Your task to perform on an android device: toggle javascript in the chrome app Image 0: 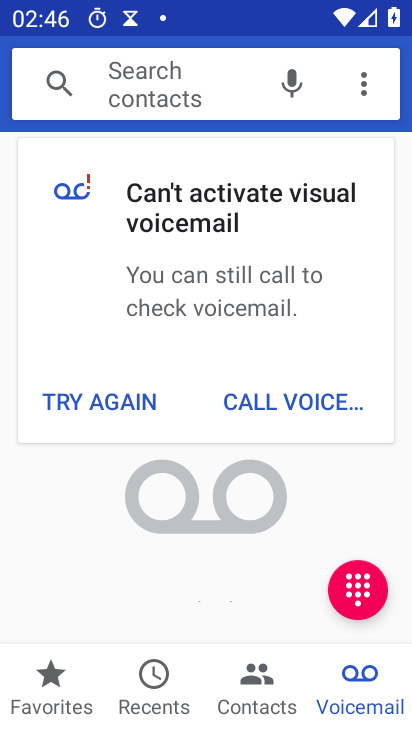
Step 0: press home button
Your task to perform on an android device: toggle javascript in the chrome app Image 1: 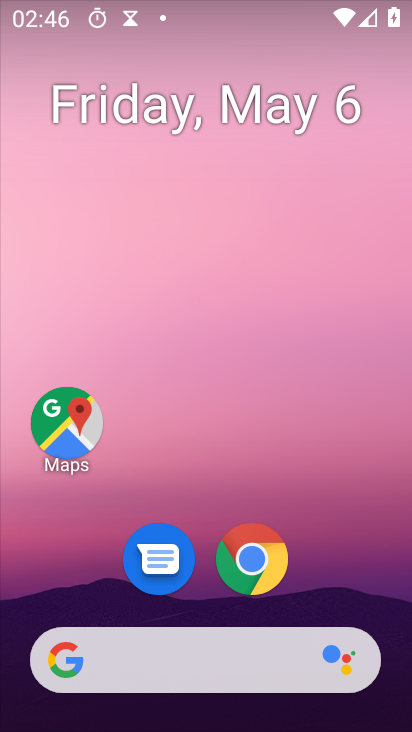
Step 1: drag from (291, 598) to (315, 28)
Your task to perform on an android device: toggle javascript in the chrome app Image 2: 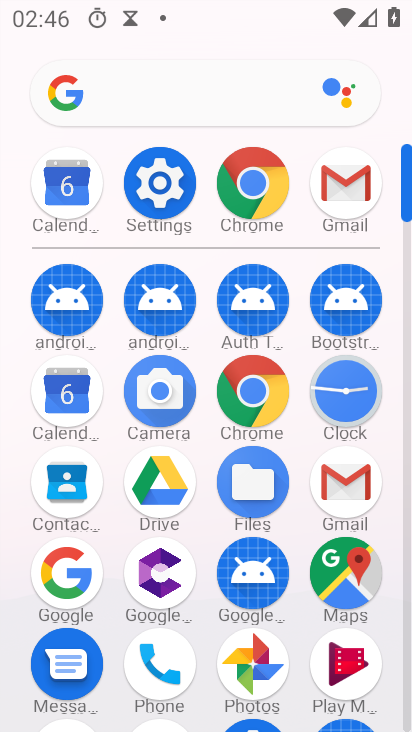
Step 2: click (269, 397)
Your task to perform on an android device: toggle javascript in the chrome app Image 3: 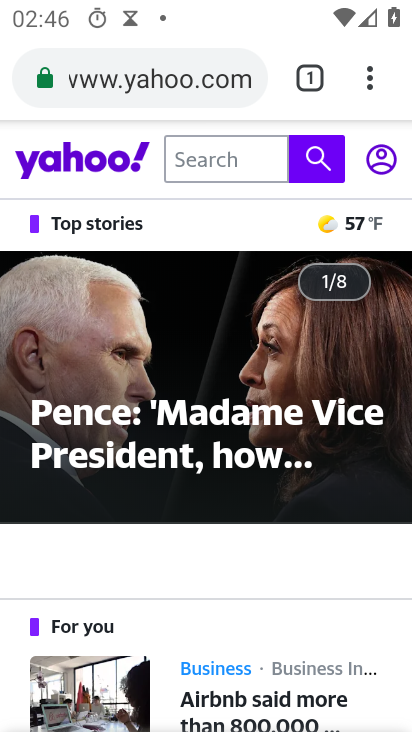
Step 3: drag from (369, 77) to (135, 619)
Your task to perform on an android device: toggle javascript in the chrome app Image 4: 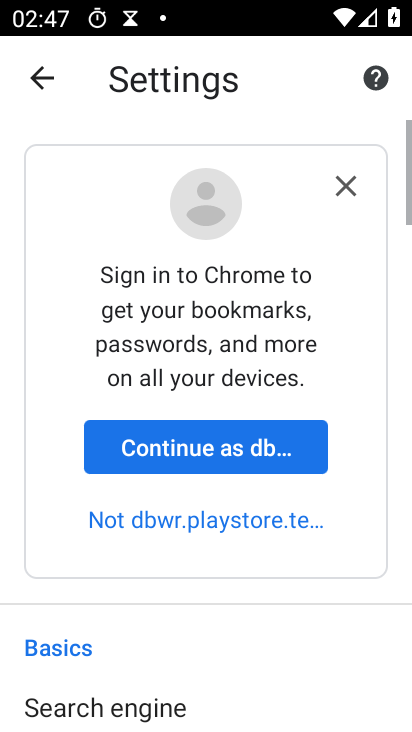
Step 4: drag from (251, 677) to (202, 94)
Your task to perform on an android device: toggle javascript in the chrome app Image 5: 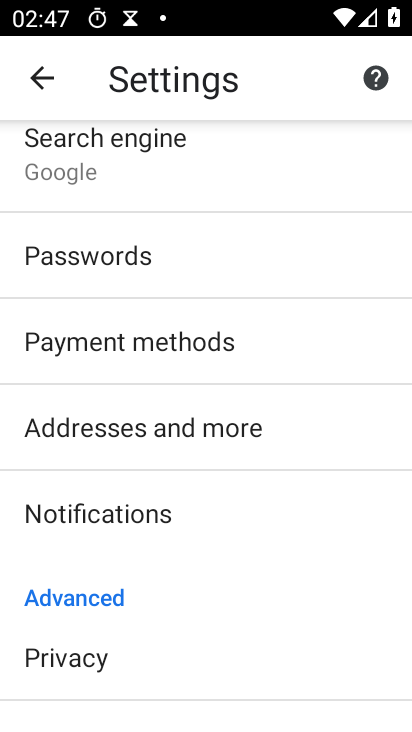
Step 5: drag from (134, 710) to (192, 212)
Your task to perform on an android device: toggle javascript in the chrome app Image 6: 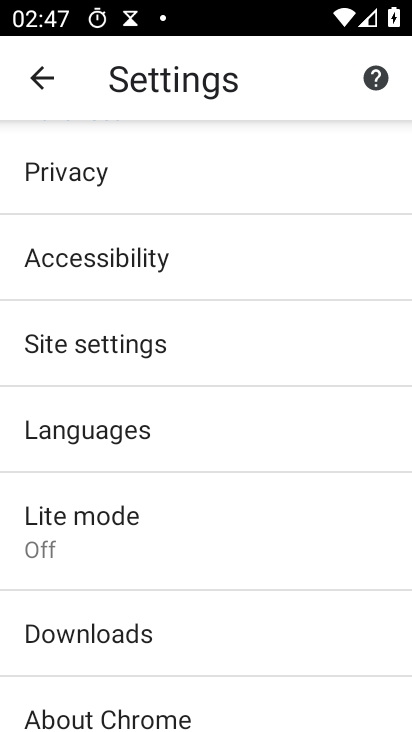
Step 6: click (148, 340)
Your task to perform on an android device: toggle javascript in the chrome app Image 7: 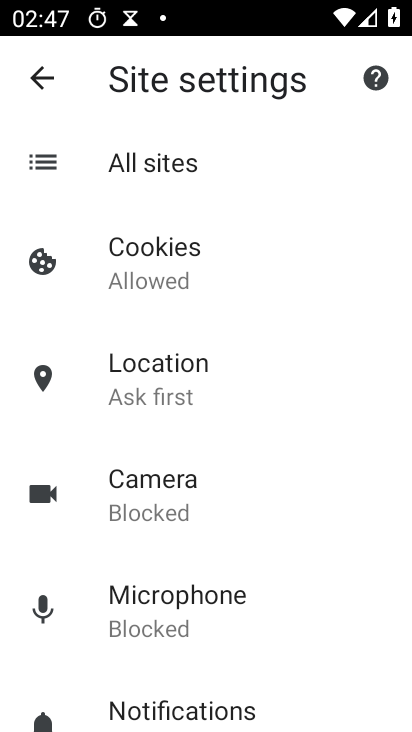
Step 7: drag from (216, 667) to (257, 253)
Your task to perform on an android device: toggle javascript in the chrome app Image 8: 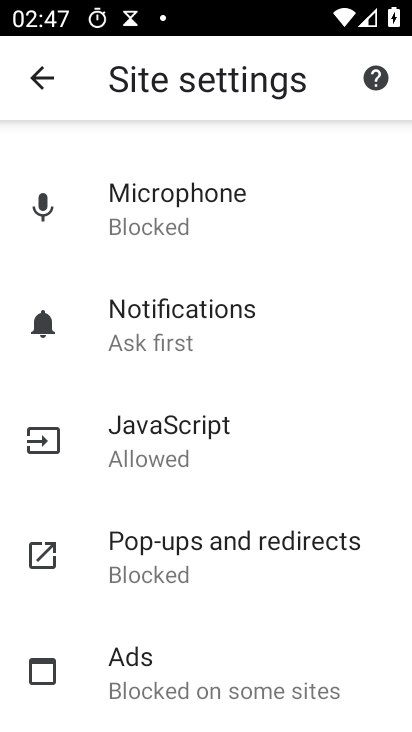
Step 8: click (185, 433)
Your task to perform on an android device: toggle javascript in the chrome app Image 9: 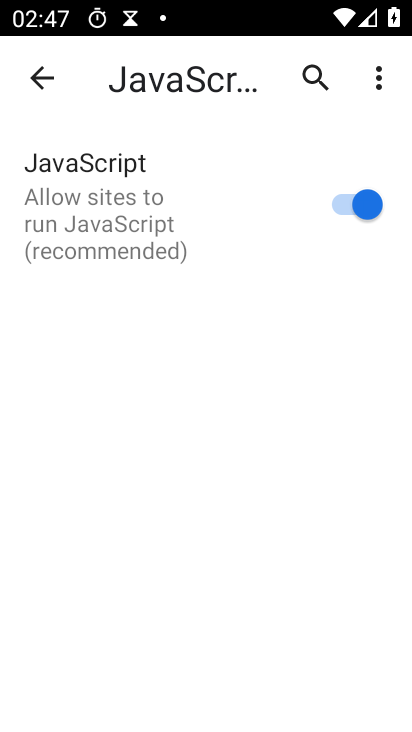
Step 9: click (348, 203)
Your task to perform on an android device: toggle javascript in the chrome app Image 10: 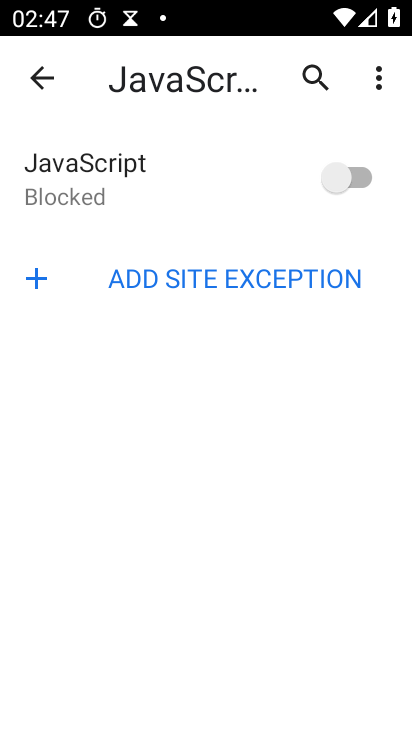
Step 10: task complete